Your task to perform on an android device: toggle show notifications on the lock screen Image 0: 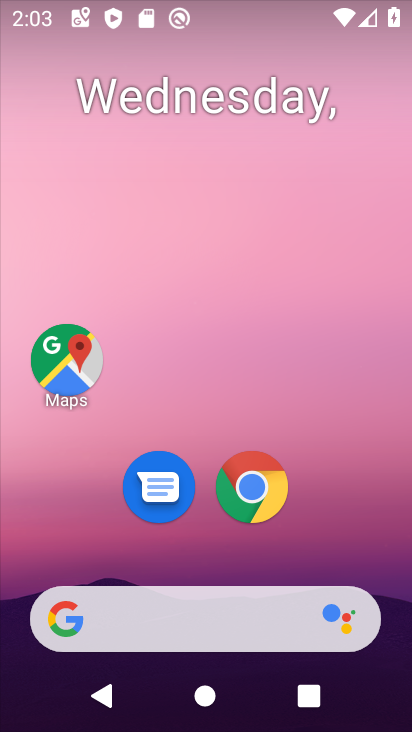
Step 0: drag from (322, 529) to (248, 96)
Your task to perform on an android device: toggle show notifications on the lock screen Image 1: 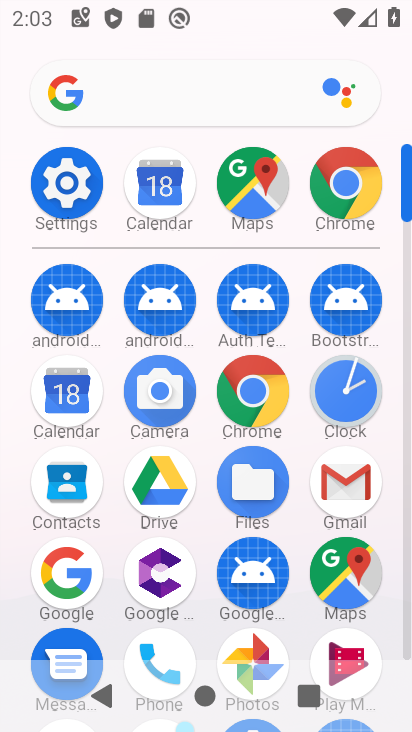
Step 1: click (66, 181)
Your task to perform on an android device: toggle show notifications on the lock screen Image 2: 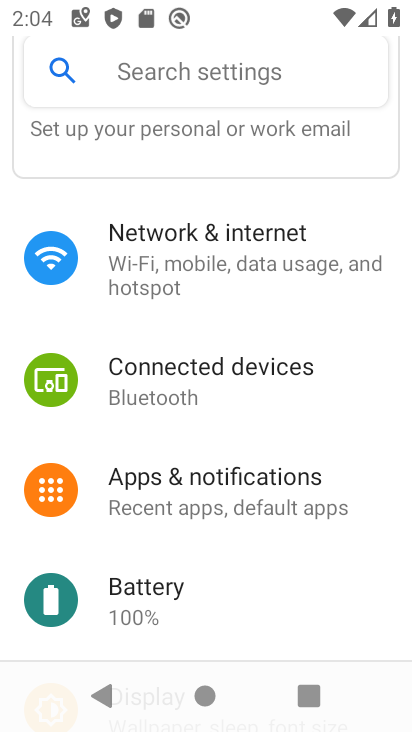
Step 2: drag from (262, 444) to (208, 234)
Your task to perform on an android device: toggle show notifications on the lock screen Image 3: 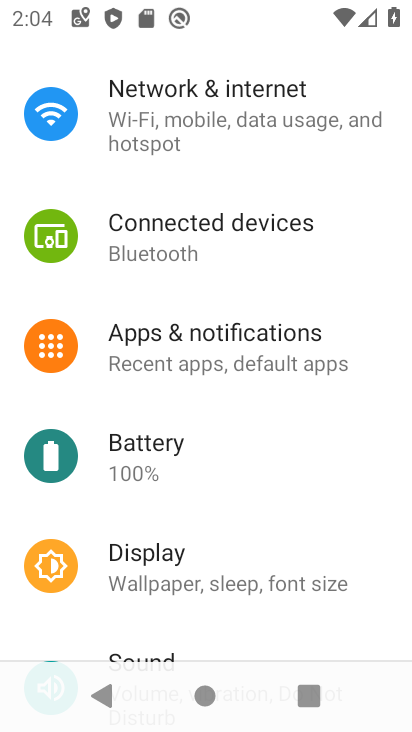
Step 3: click (242, 334)
Your task to perform on an android device: toggle show notifications on the lock screen Image 4: 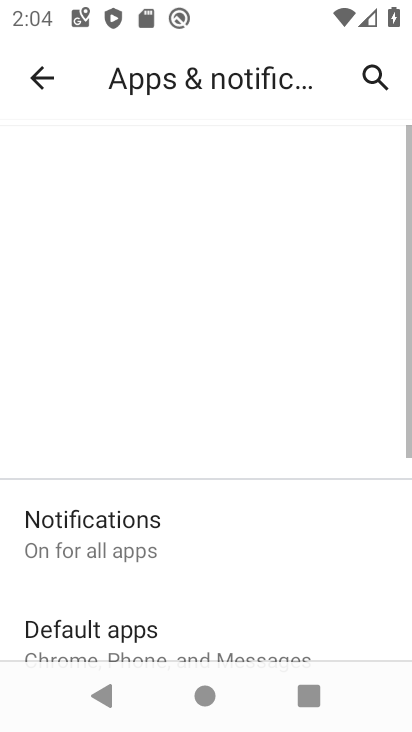
Step 4: drag from (263, 514) to (187, 234)
Your task to perform on an android device: toggle show notifications on the lock screen Image 5: 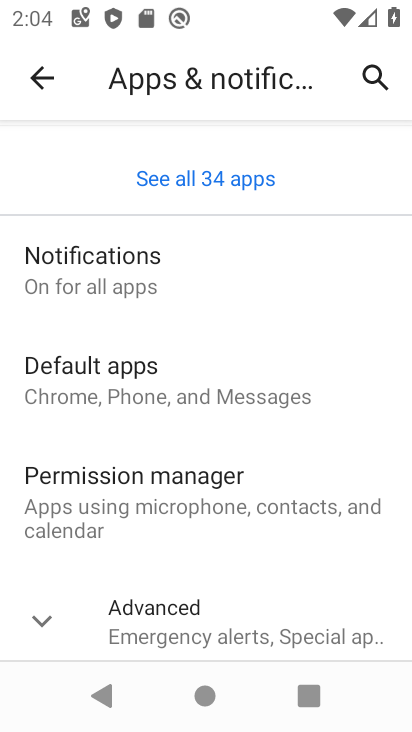
Step 5: click (83, 258)
Your task to perform on an android device: toggle show notifications on the lock screen Image 6: 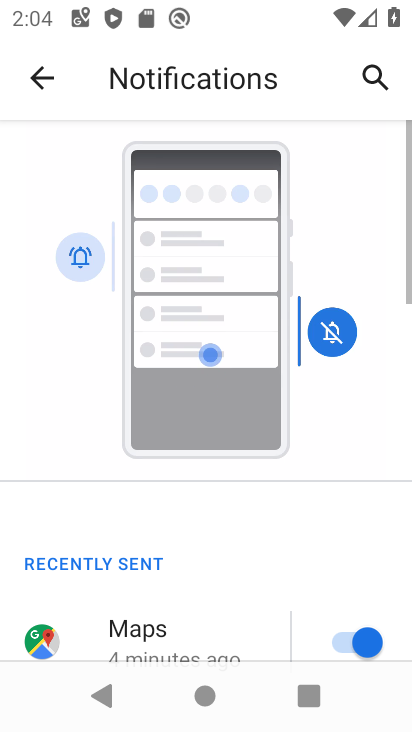
Step 6: drag from (204, 526) to (107, 201)
Your task to perform on an android device: toggle show notifications on the lock screen Image 7: 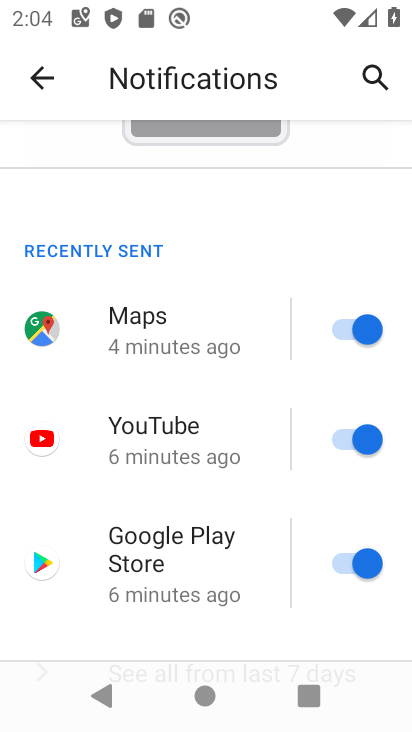
Step 7: drag from (211, 491) to (164, 216)
Your task to perform on an android device: toggle show notifications on the lock screen Image 8: 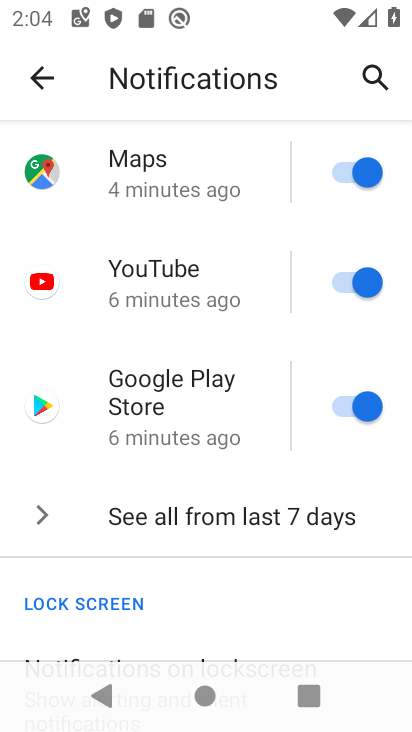
Step 8: drag from (178, 581) to (139, 271)
Your task to perform on an android device: toggle show notifications on the lock screen Image 9: 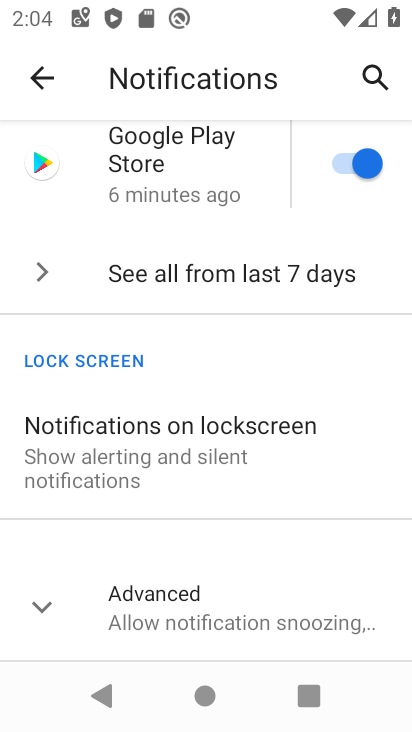
Step 9: click (133, 421)
Your task to perform on an android device: toggle show notifications on the lock screen Image 10: 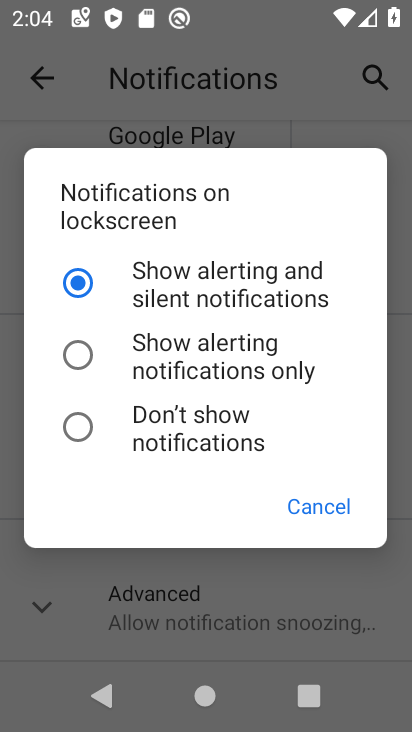
Step 10: click (73, 419)
Your task to perform on an android device: toggle show notifications on the lock screen Image 11: 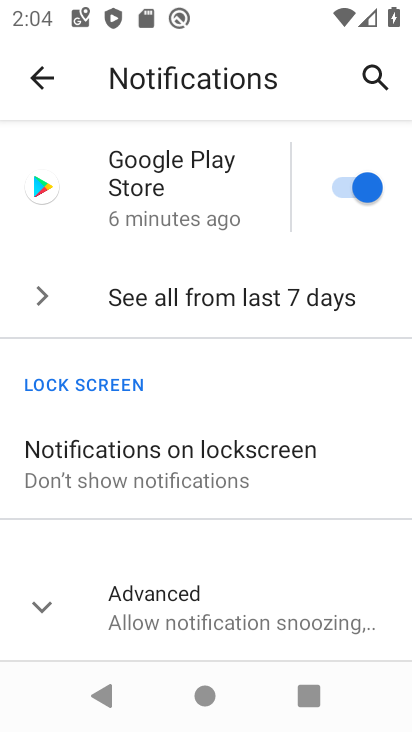
Step 11: task complete